Your task to perform on an android device: Open the stopwatch Image 0: 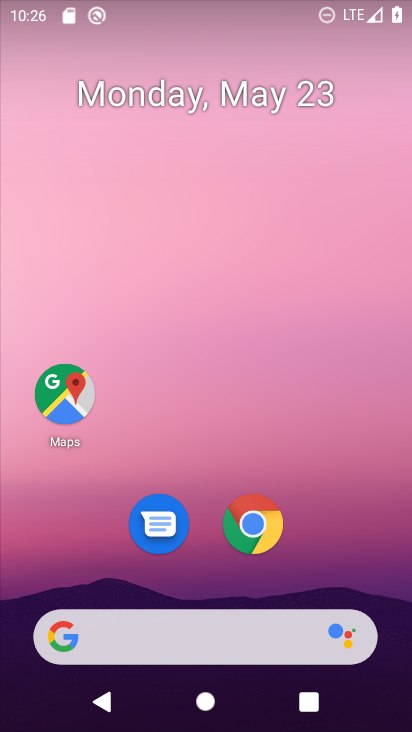
Step 0: drag from (199, 449) to (237, 59)
Your task to perform on an android device: Open the stopwatch Image 1: 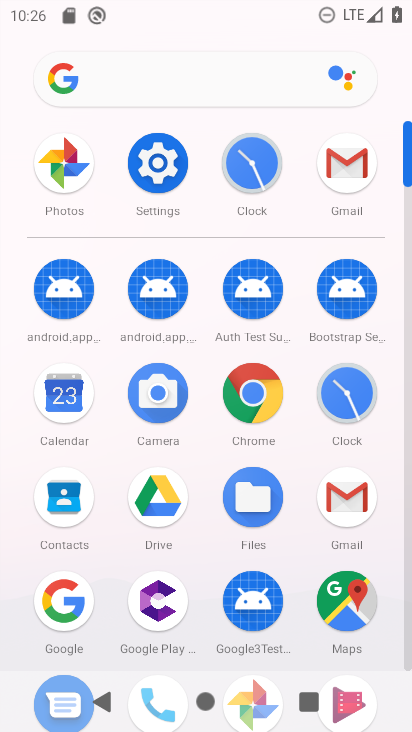
Step 1: click (249, 153)
Your task to perform on an android device: Open the stopwatch Image 2: 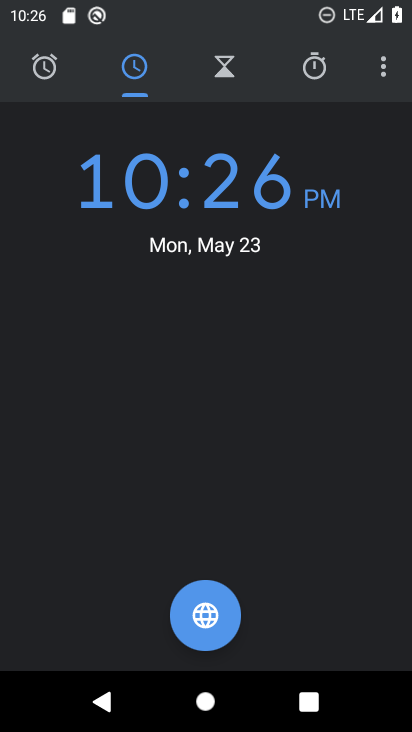
Step 2: click (312, 65)
Your task to perform on an android device: Open the stopwatch Image 3: 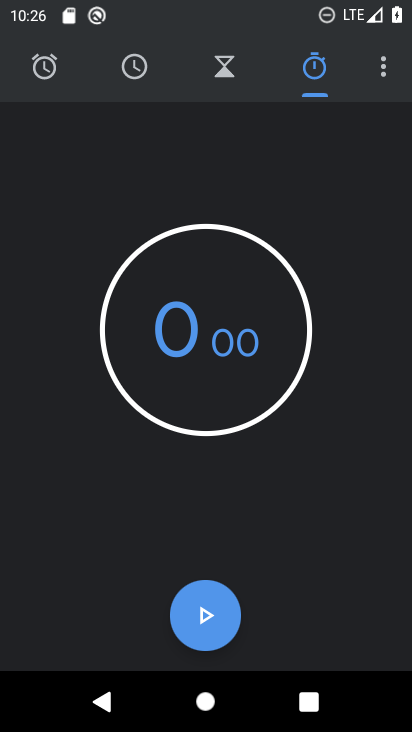
Step 3: task complete